Your task to perform on an android device: open sync settings in chrome Image 0: 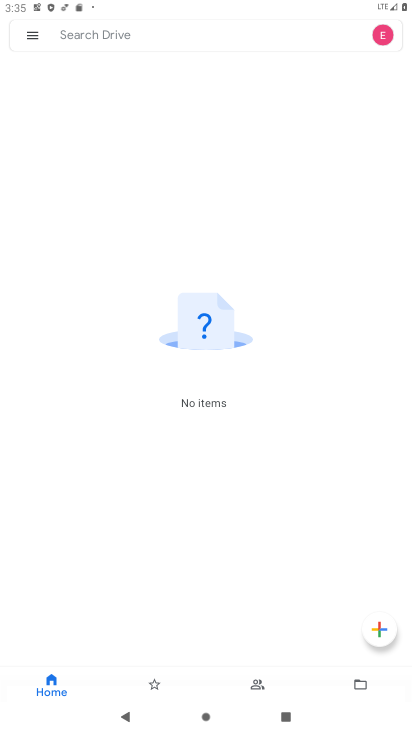
Step 0: click (30, 30)
Your task to perform on an android device: open sync settings in chrome Image 1: 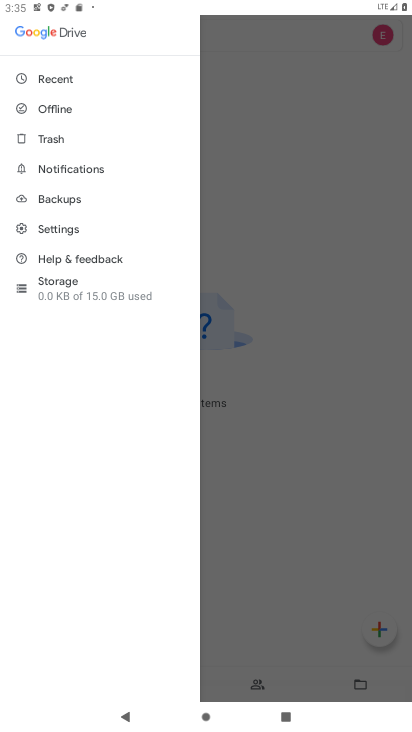
Step 1: press home button
Your task to perform on an android device: open sync settings in chrome Image 2: 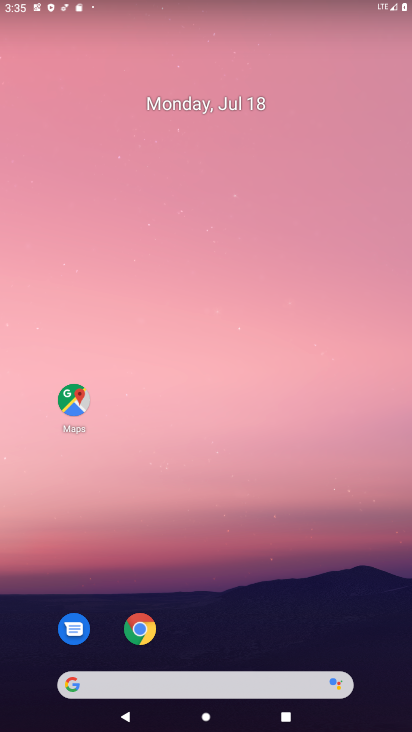
Step 2: click (142, 632)
Your task to perform on an android device: open sync settings in chrome Image 3: 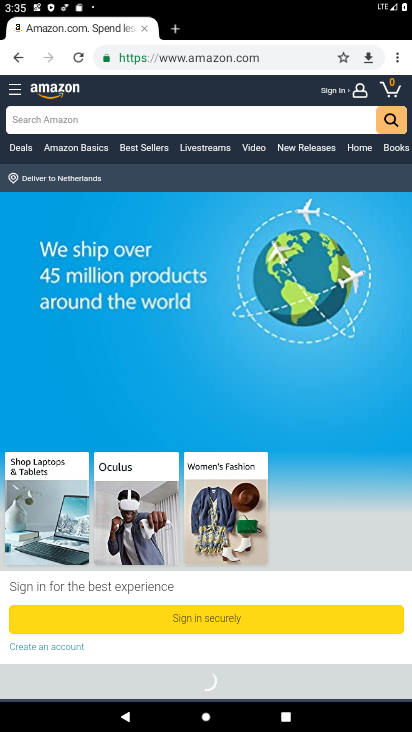
Step 3: click (397, 53)
Your task to perform on an android device: open sync settings in chrome Image 4: 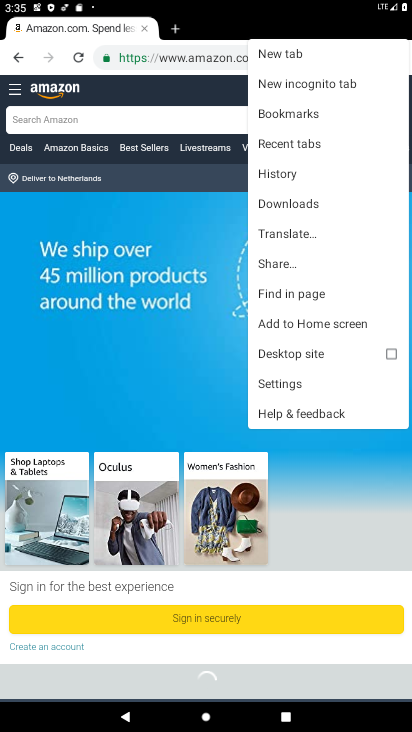
Step 4: click (283, 377)
Your task to perform on an android device: open sync settings in chrome Image 5: 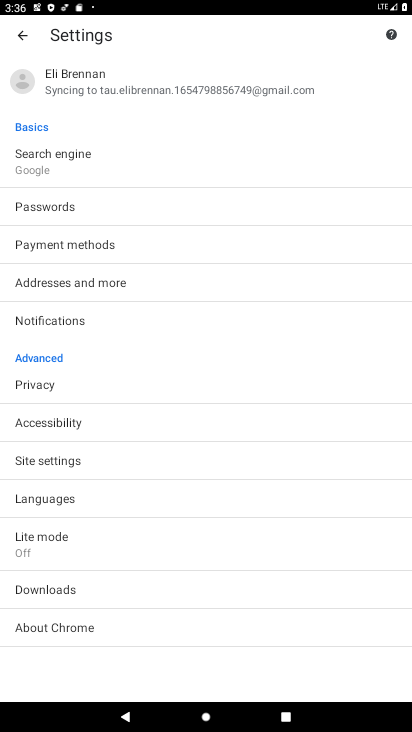
Step 5: click (105, 85)
Your task to perform on an android device: open sync settings in chrome Image 6: 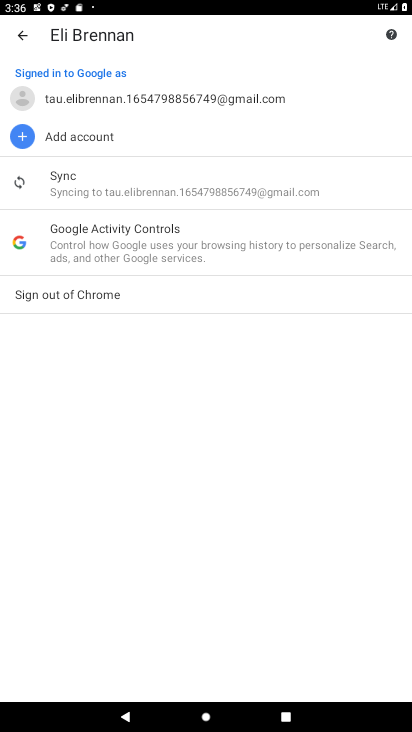
Step 6: click (113, 182)
Your task to perform on an android device: open sync settings in chrome Image 7: 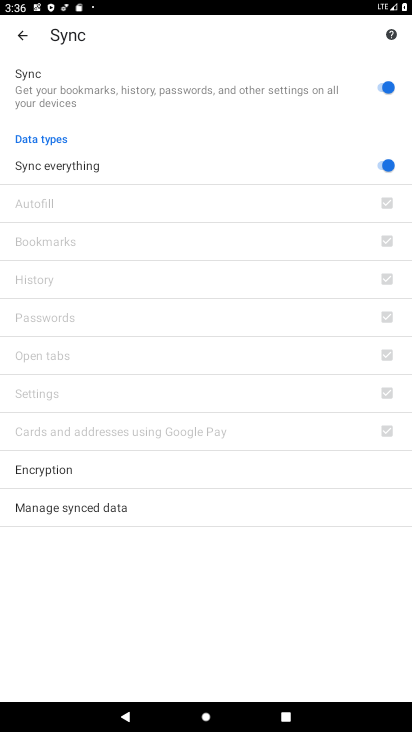
Step 7: task complete